Your task to perform on an android device: Go to notification settings Image 0: 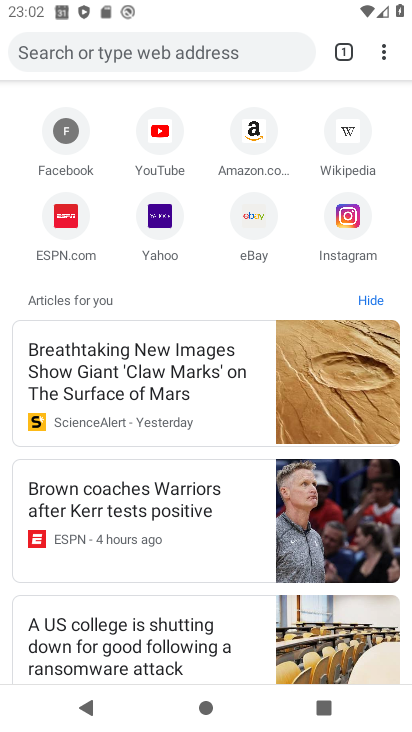
Step 0: press back button
Your task to perform on an android device: Go to notification settings Image 1: 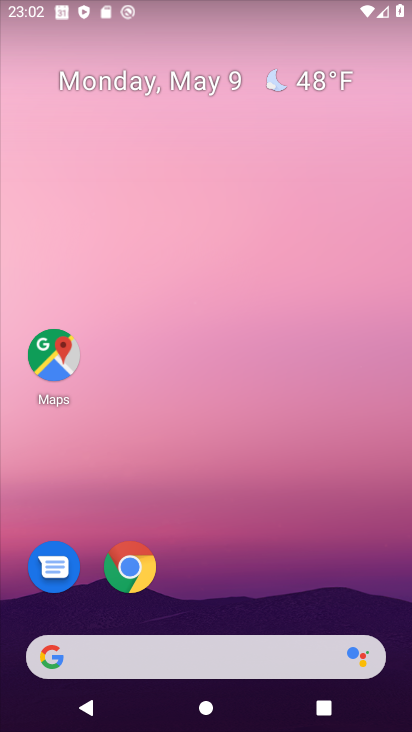
Step 1: drag from (251, 559) to (212, 88)
Your task to perform on an android device: Go to notification settings Image 2: 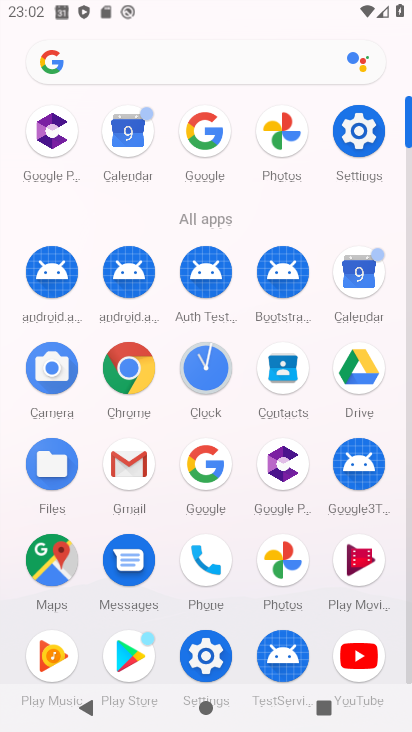
Step 2: click (359, 130)
Your task to perform on an android device: Go to notification settings Image 3: 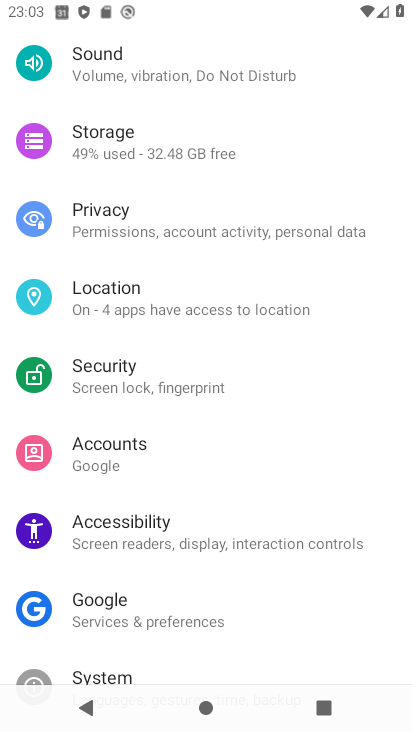
Step 3: drag from (229, 240) to (247, 351)
Your task to perform on an android device: Go to notification settings Image 4: 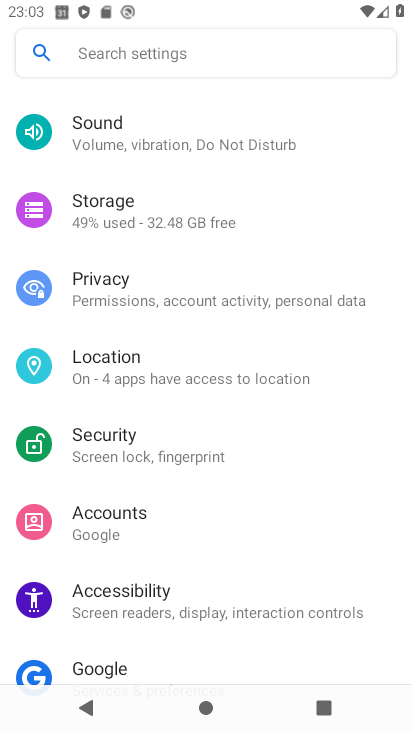
Step 4: drag from (209, 192) to (200, 346)
Your task to perform on an android device: Go to notification settings Image 5: 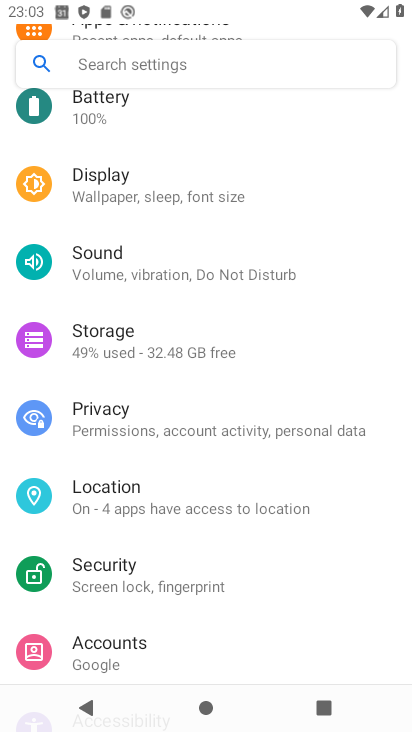
Step 5: drag from (176, 172) to (196, 353)
Your task to perform on an android device: Go to notification settings Image 6: 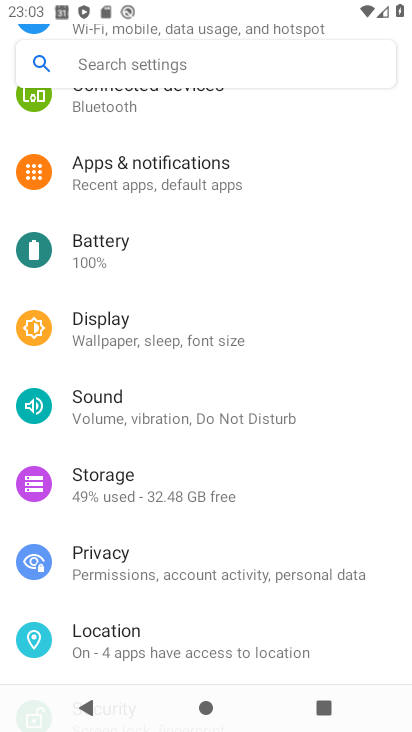
Step 6: click (175, 160)
Your task to perform on an android device: Go to notification settings Image 7: 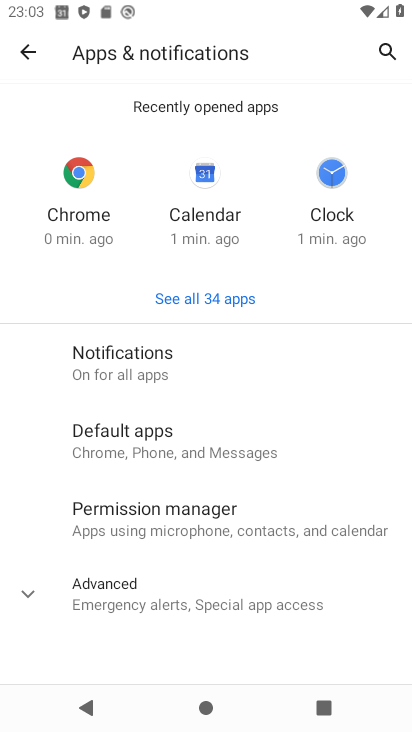
Step 7: click (145, 349)
Your task to perform on an android device: Go to notification settings Image 8: 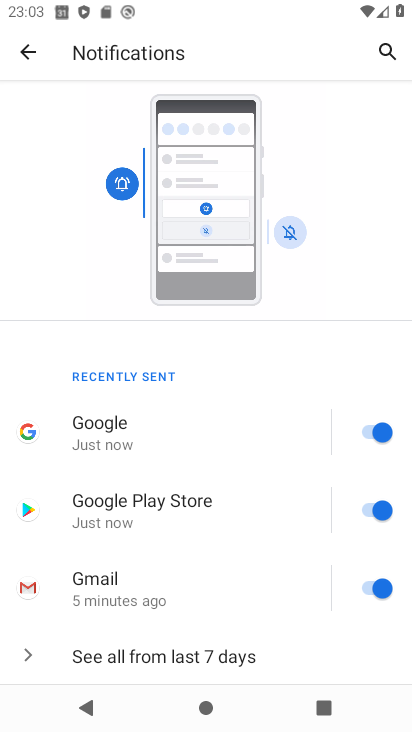
Step 8: task complete